Your task to perform on an android device: check battery use Image 0: 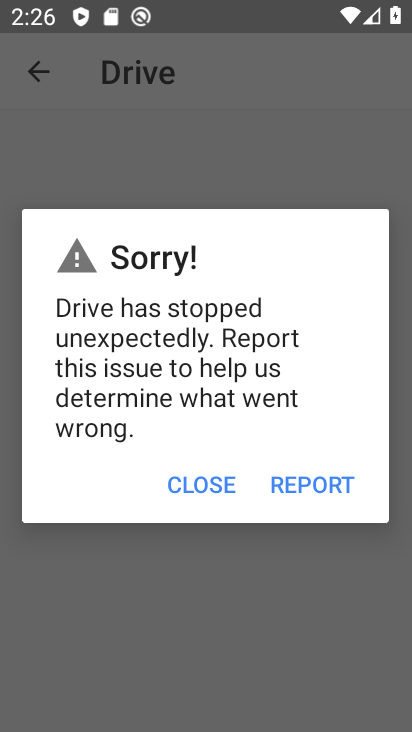
Step 0: press home button
Your task to perform on an android device: check battery use Image 1: 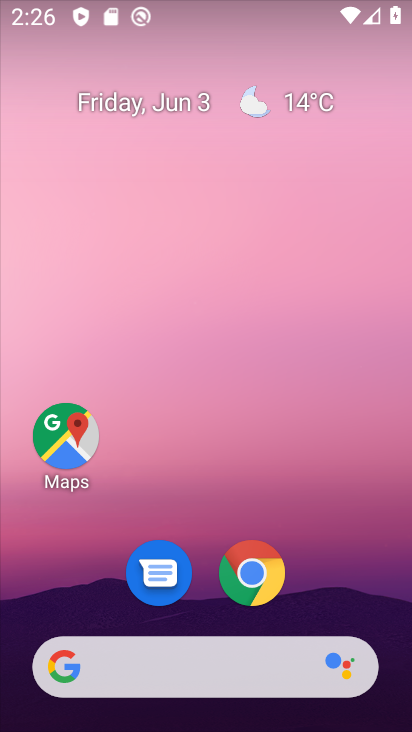
Step 1: drag from (305, 653) to (324, 71)
Your task to perform on an android device: check battery use Image 2: 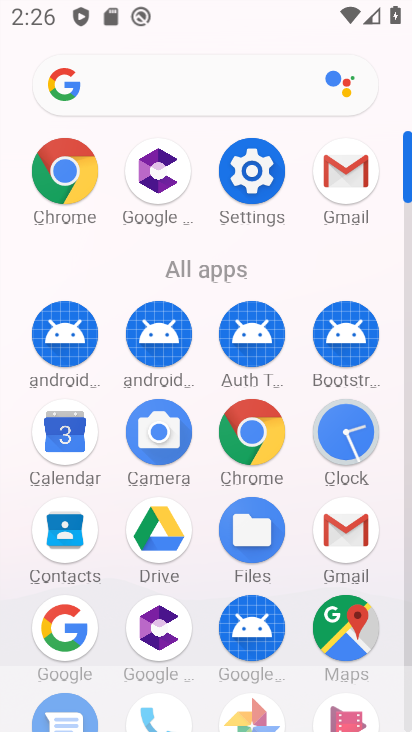
Step 2: click (243, 177)
Your task to perform on an android device: check battery use Image 3: 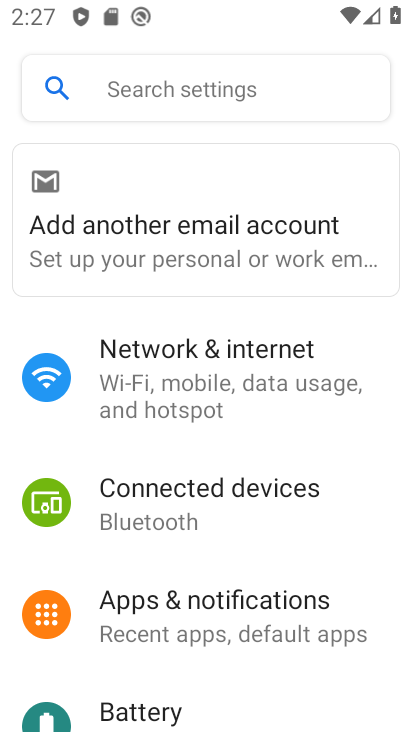
Step 3: click (234, 711)
Your task to perform on an android device: check battery use Image 4: 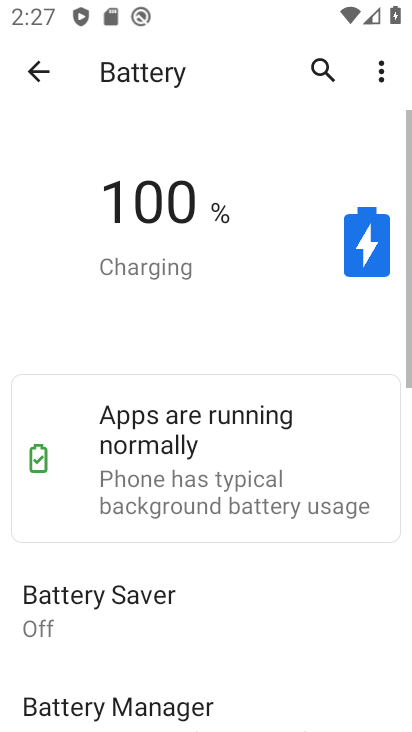
Step 4: task complete